Your task to perform on an android device: Open ESPN.com Image 0: 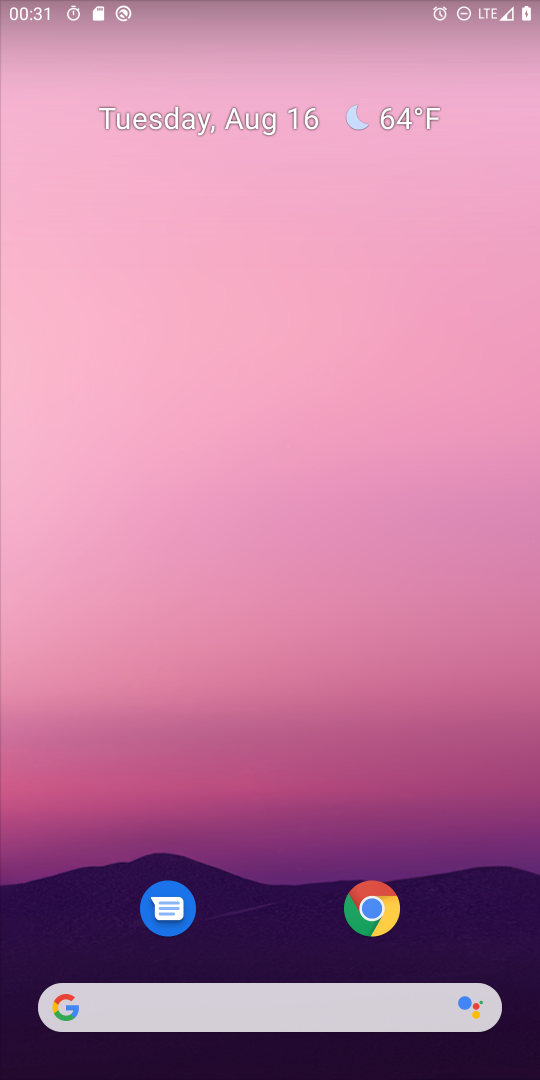
Step 0: click (380, 900)
Your task to perform on an android device: Open ESPN.com Image 1: 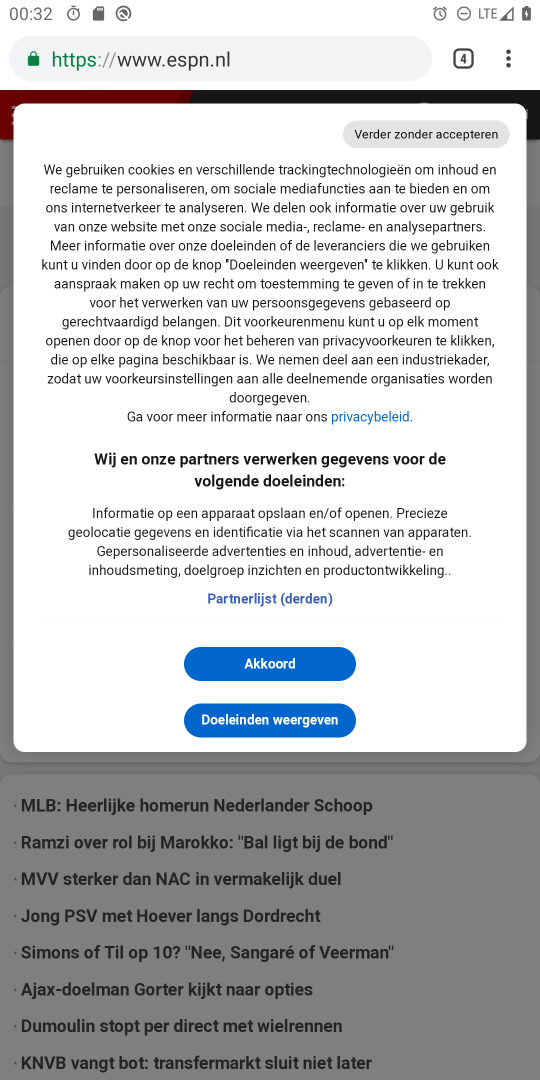
Step 1: task complete